Your task to perform on an android device: Open calendar and show me the fourth week of next month Image 0: 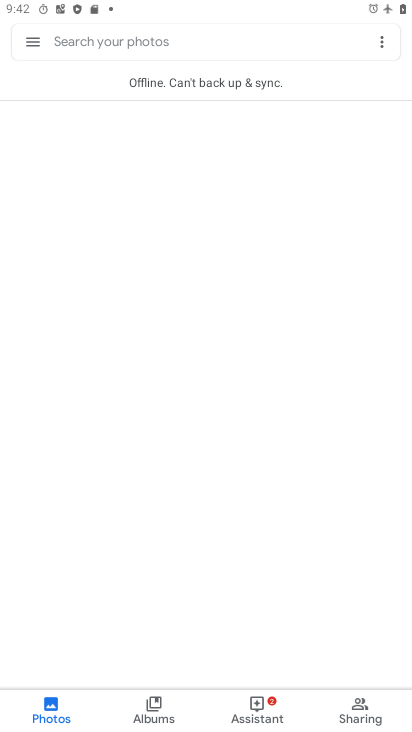
Step 0: press home button
Your task to perform on an android device: Open calendar and show me the fourth week of next month Image 1: 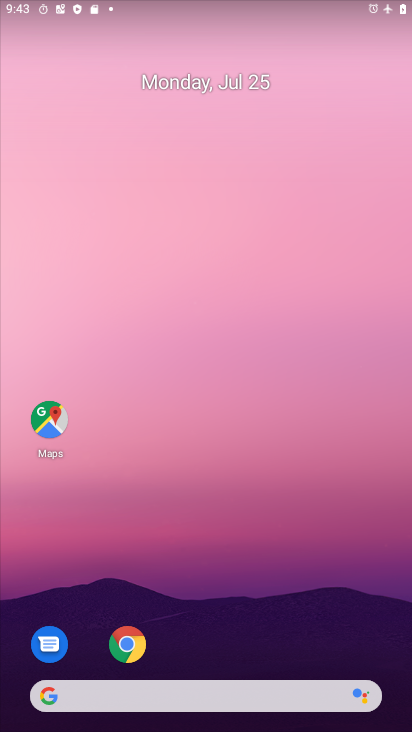
Step 1: drag from (185, 624) to (151, 48)
Your task to perform on an android device: Open calendar and show me the fourth week of next month Image 2: 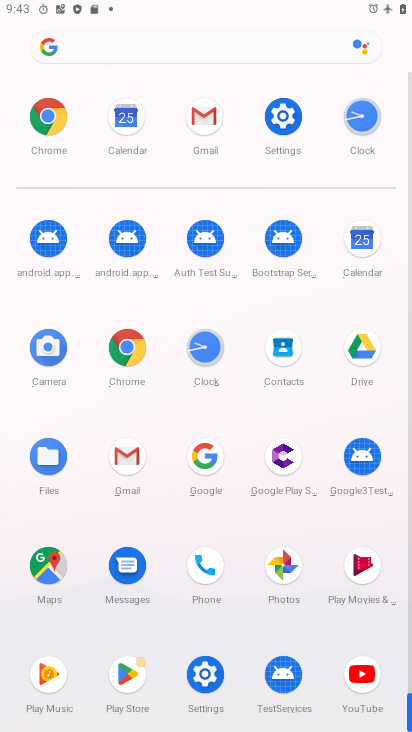
Step 2: click (374, 247)
Your task to perform on an android device: Open calendar and show me the fourth week of next month Image 3: 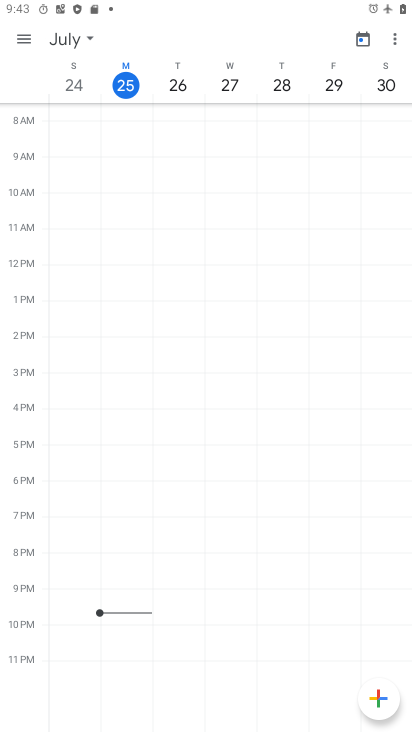
Step 3: click (33, 32)
Your task to perform on an android device: Open calendar and show me the fourth week of next month Image 4: 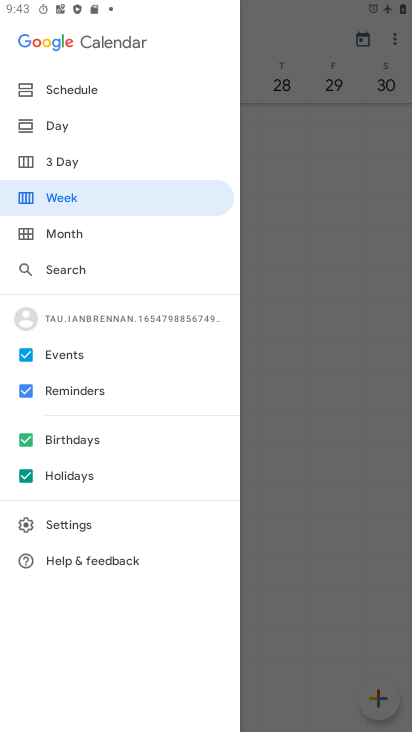
Step 4: click (288, 168)
Your task to perform on an android device: Open calendar and show me the fourth week of next month Image 5: 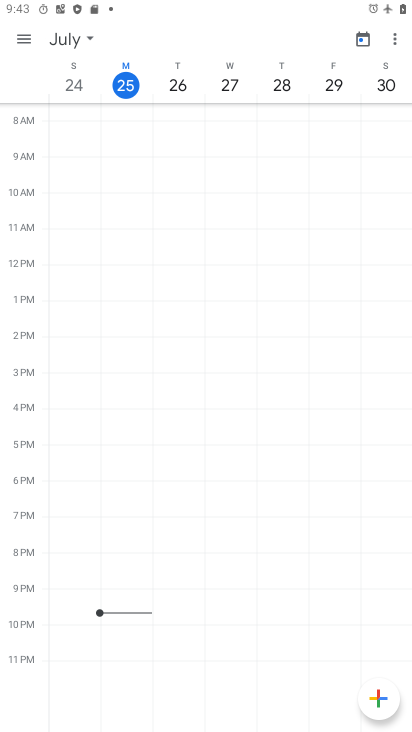
Step 5: click (80, 33)
Your task to perform on an android device: Open calendar and show me the fourth week of next month Image 6: 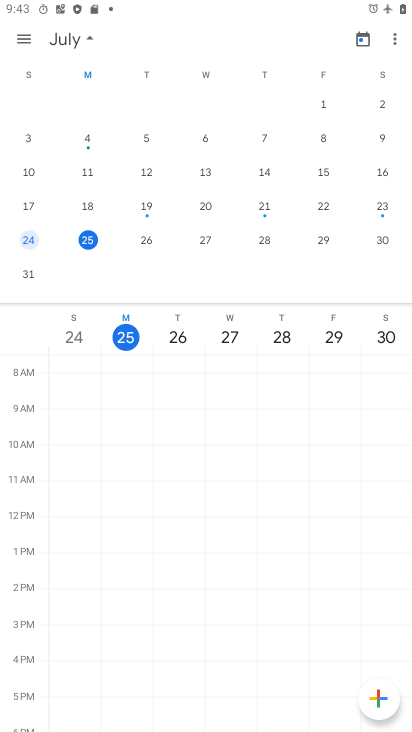
Step 6: drag from (342, 229) to (3, 241)
Your task to perform on an android device: Open calendar and show me the fourth week of next month Image 7: 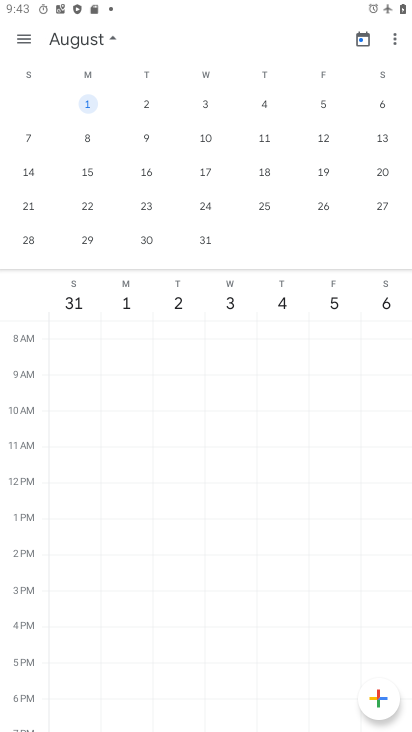
Step 7: click (28, 202)
Your task to perform on an android device: Open calendar and show me the fourth week of next month Image 8: 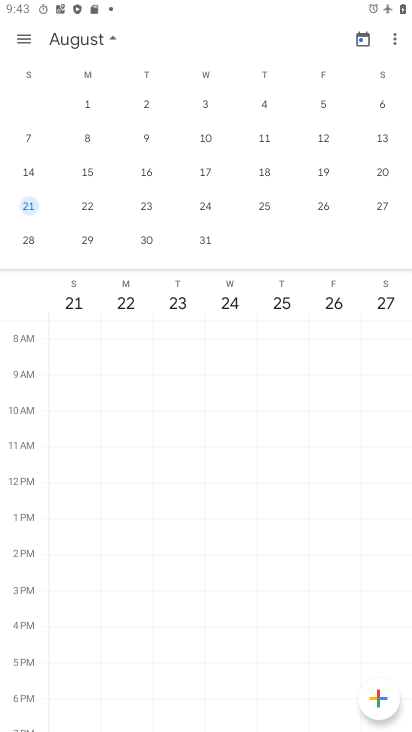
Step 8: click (96, 30)
Your task to perform on an android device: Open calendar and show me the fourth week of next month Image 9: 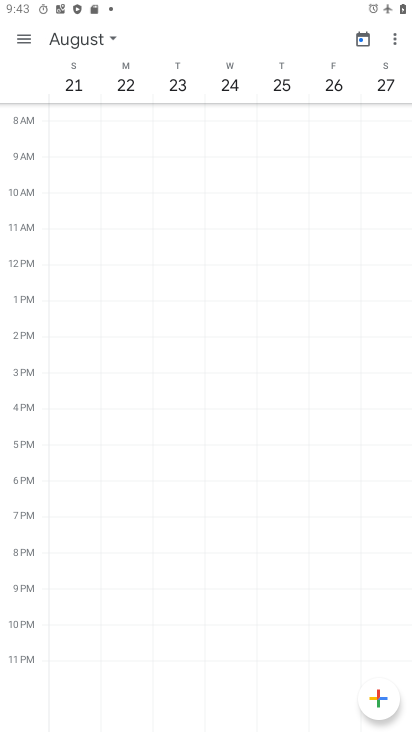
Step 9: task complete